Your task to perform on an android device: open app "Contacts" Image 0: 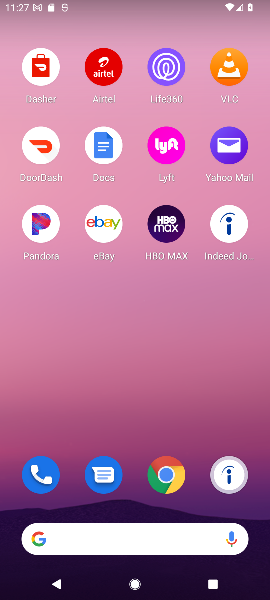
Step 0: drag from (112, 456) to (14, 0)
Your task to perform on an android device: open app "Contacts" Image 1: 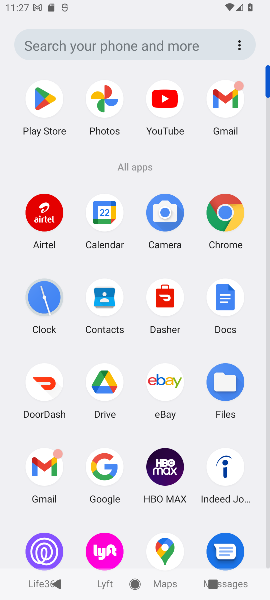
Step 1: click (41, 93)
Your task to perform on an android device: open app "Contacts" Image 2: 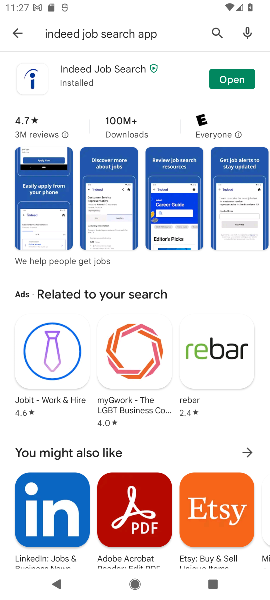
Step 2: click (19, 34)
Your task to perform on an android device: open app "Contacts" Image 3: 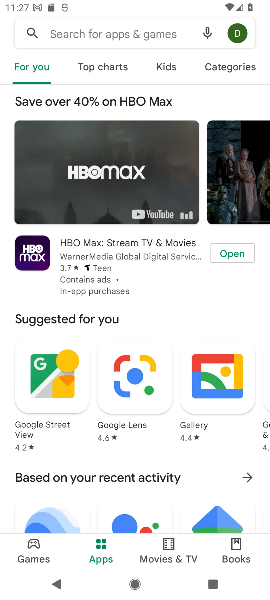
Step 3: click (98, 34)
Your task to perform on an android device: open app "Contacts" Image 4: 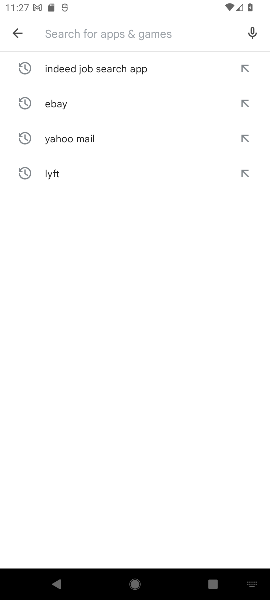
Step 4: type "Contacts"
Your task to perform on an android device: open app "Contacts" Image 5: 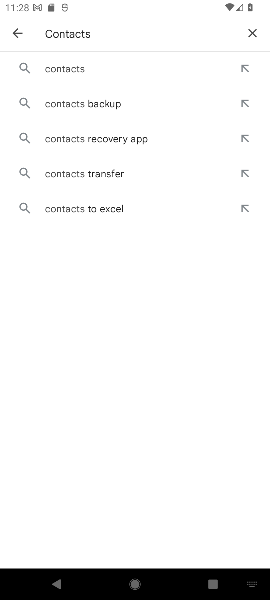
Step 5: click (70, 68)
Your task to perform on an android device: open app "Contacts" Image 6: 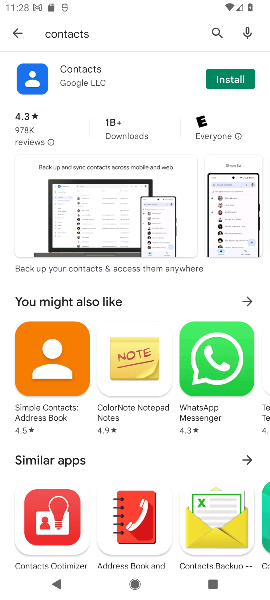
Step 6: click (231, 85)
Your task to perform on an android device: open app "Contacts" Image 7: 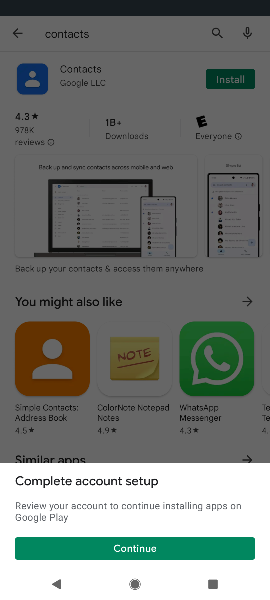
Step 7: click (122, 549)
Your task to perform on an android device: open app "Contacts" Image 8: 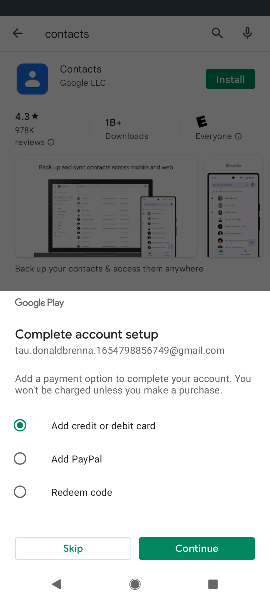
Step 8: click (63, 551)
Your task to perform on an android device: open app "Contacts" Image 9: 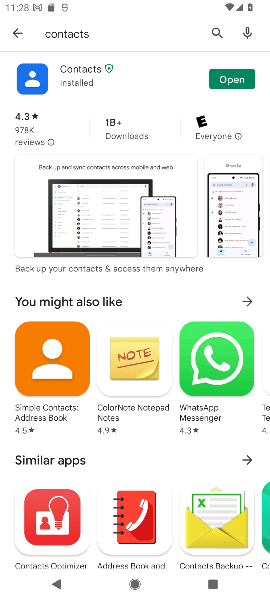
Step 9: click (224, 85)
Your task to perform on an android device: open app "Contacts" Image 10: 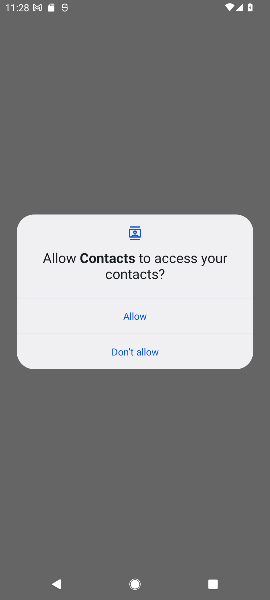
Step 10: click (132, 316)
Your task to perform on an android device: open app "Contacts" Image 11: 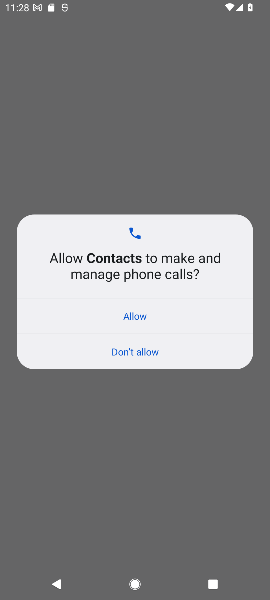
Step 11: click (132, 316)
Your task to perform on an android device: open app "Contacts" Image 12: 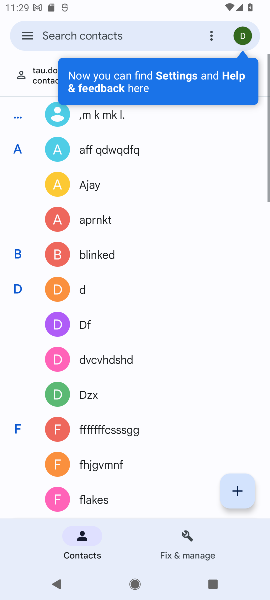
Step 12: task complete